Your task to perform on an android device: Go to internet settings Image 0: 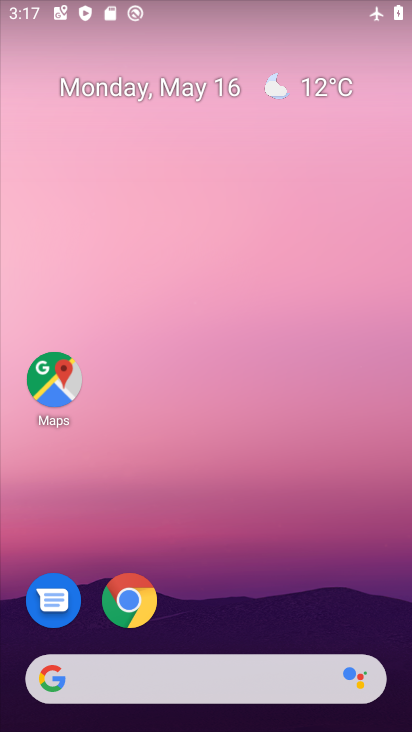
Step 0: drag from (222, 660) to (171, 522)
Your task to perform on an android device: Go to internet settings Image 1: 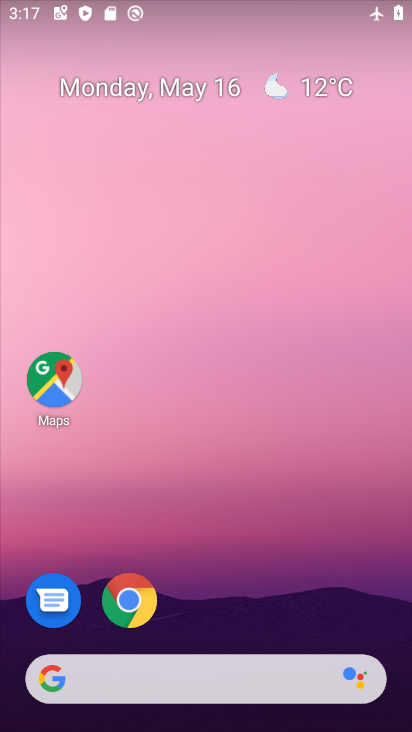
Step 1: drag from (237, 654) to (49, 705)
Your task to perform on an android device: Go to internet settings Image 2: 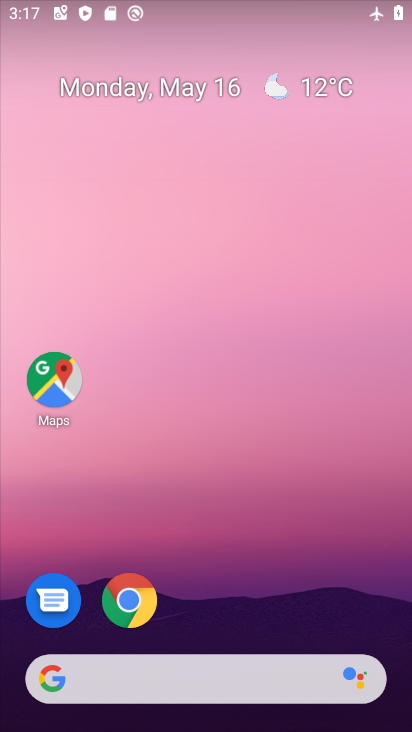
Step 2: drag from (241, 653) to (175, 11)
Your task to perform on an android device: Go to internet settings Image 3: 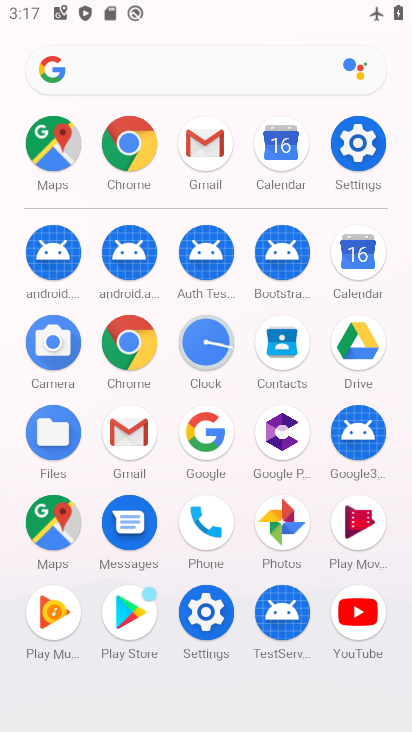
Step 3: click (348, 146)
Your task to perform on an android device: Go to internet settings Image 4: 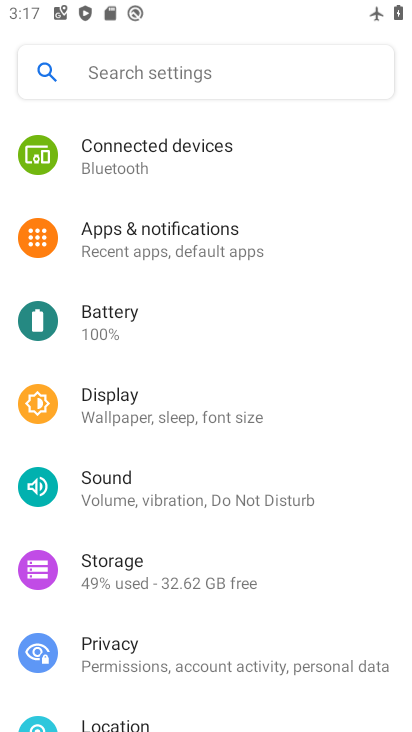
Step 4: drag from (201, 170) to (203, 647)
Your task to perform on an android device: Go to internet settings Image 5: 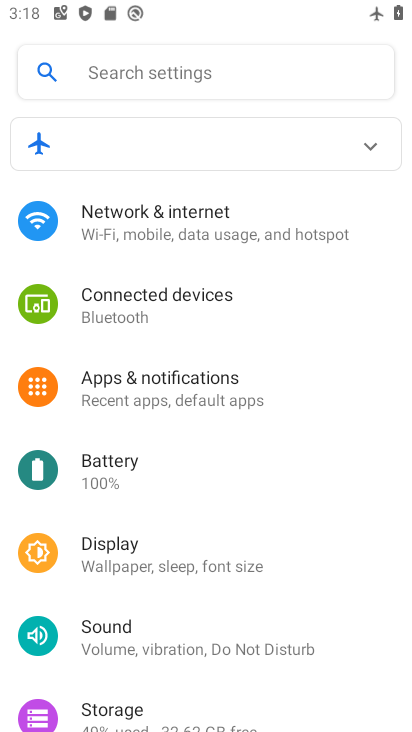
Step 5: click (172, 220)
Your task to perform on an android device: Go to internet settings Image 6: 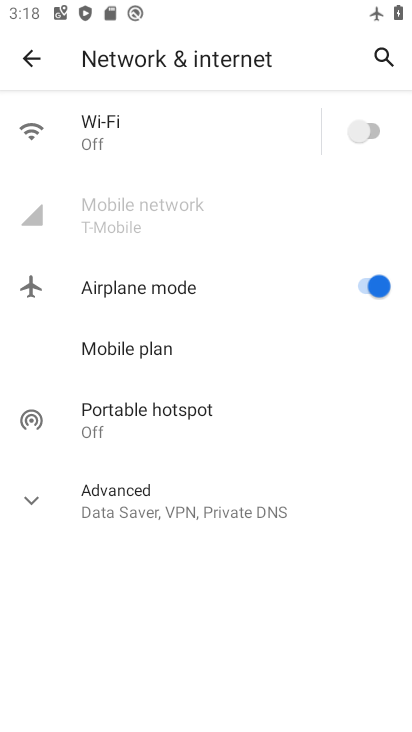
Step 6: task complete